Your task to perform on an android device: uninstall "Airtel Thanks" Image 0: 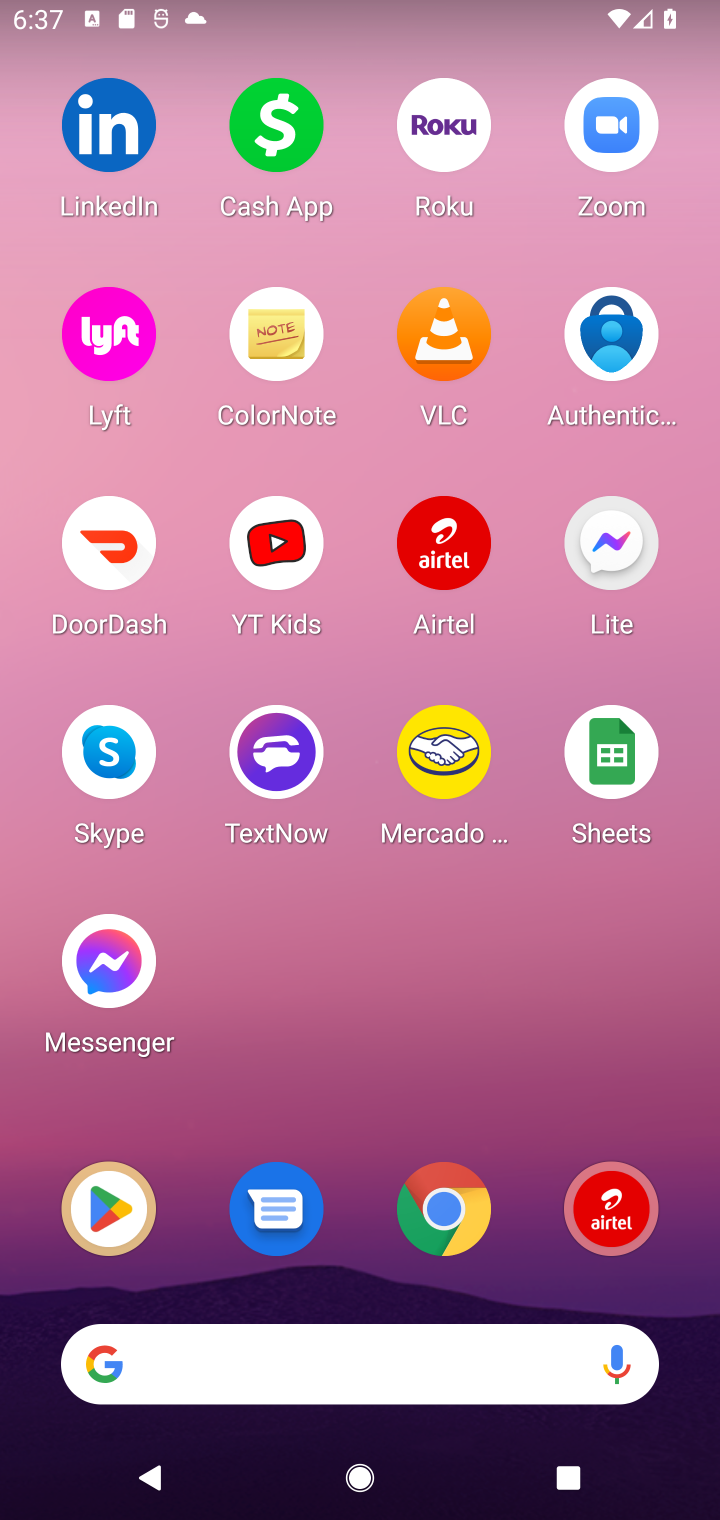
Step 0: click (438, 544)
Your task to perform on an android device: uninstall "Airtel Thanks" Image 1: 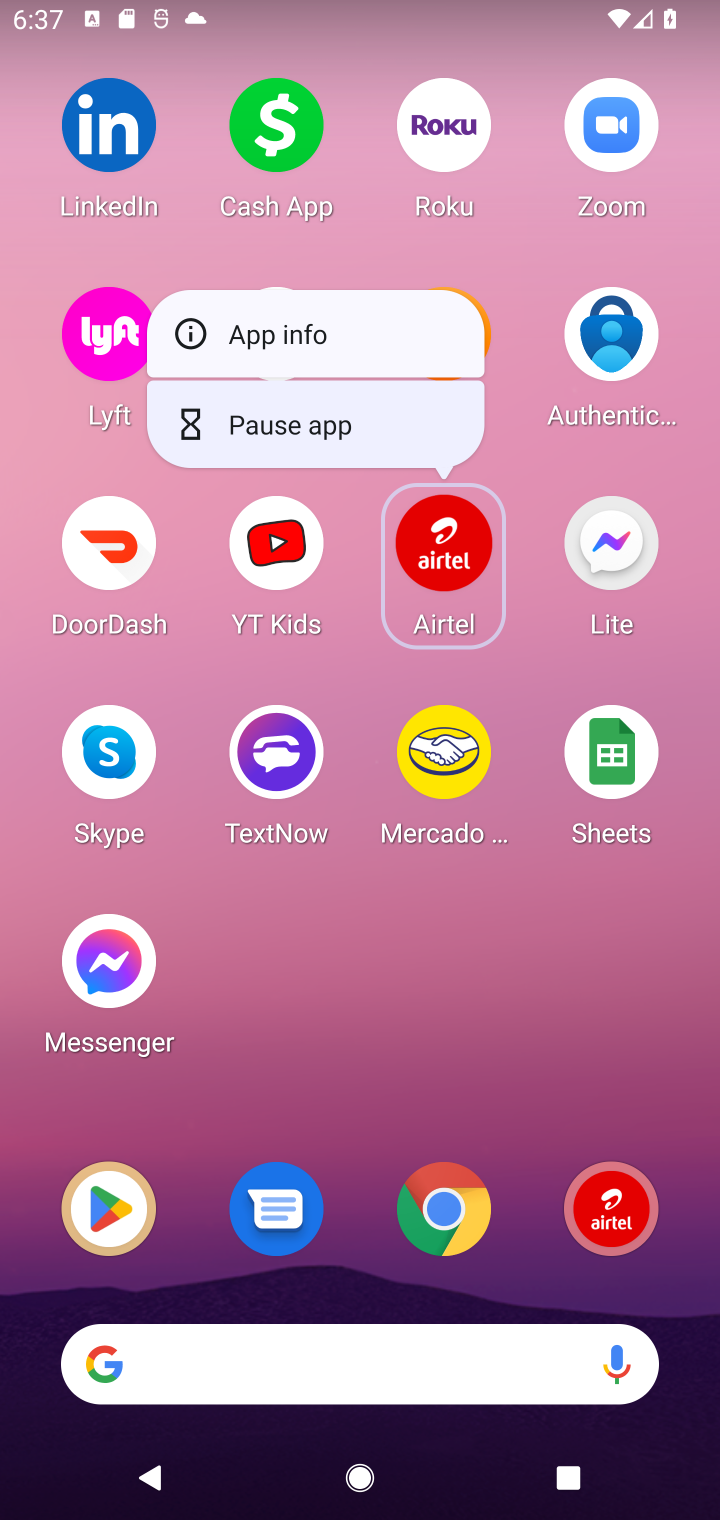
Step 1: click (270, 345)
Your task to perform on an android device: uninstall "Airtel Thanks" Image 2: 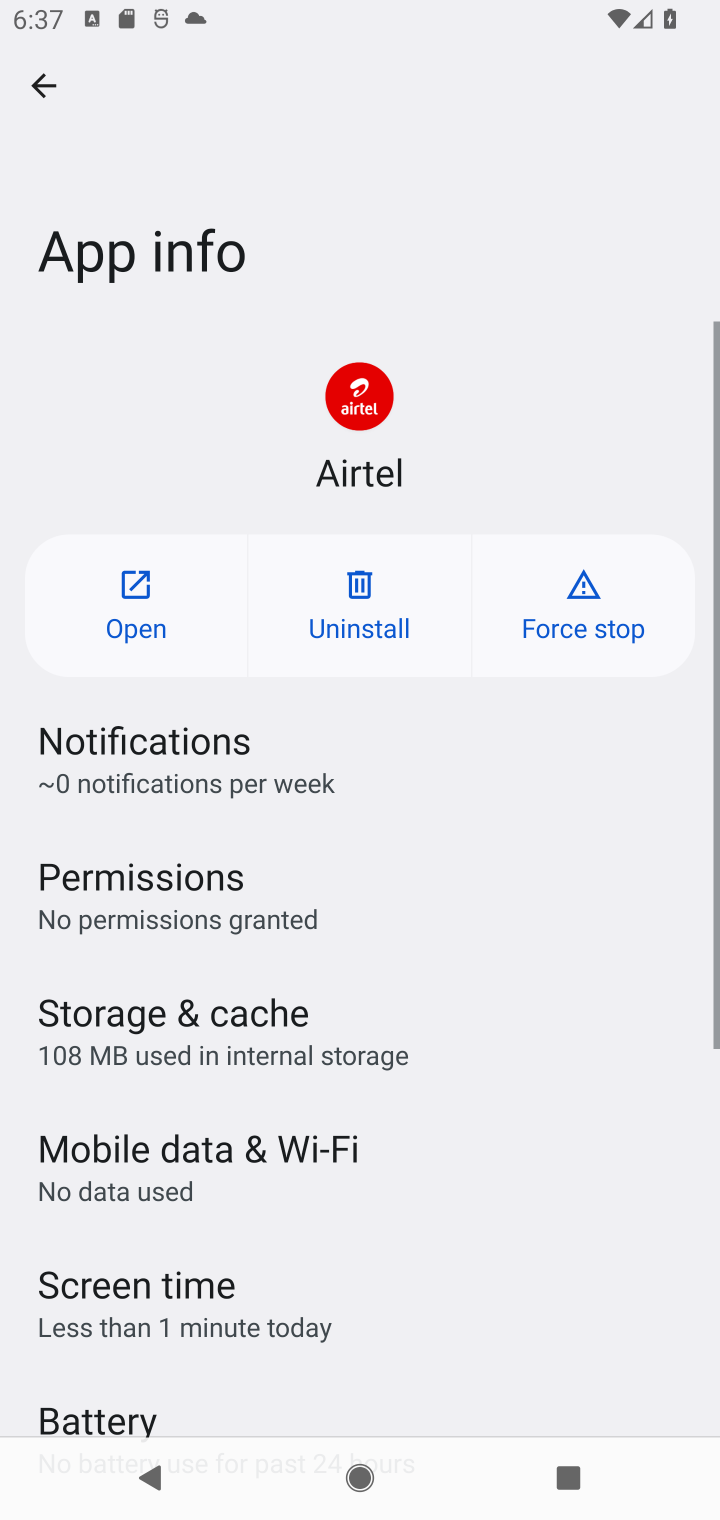
Step 2: click (353, 634)
Your task to perform on an android device: uninstall "Airtel Thanks" Image 3: 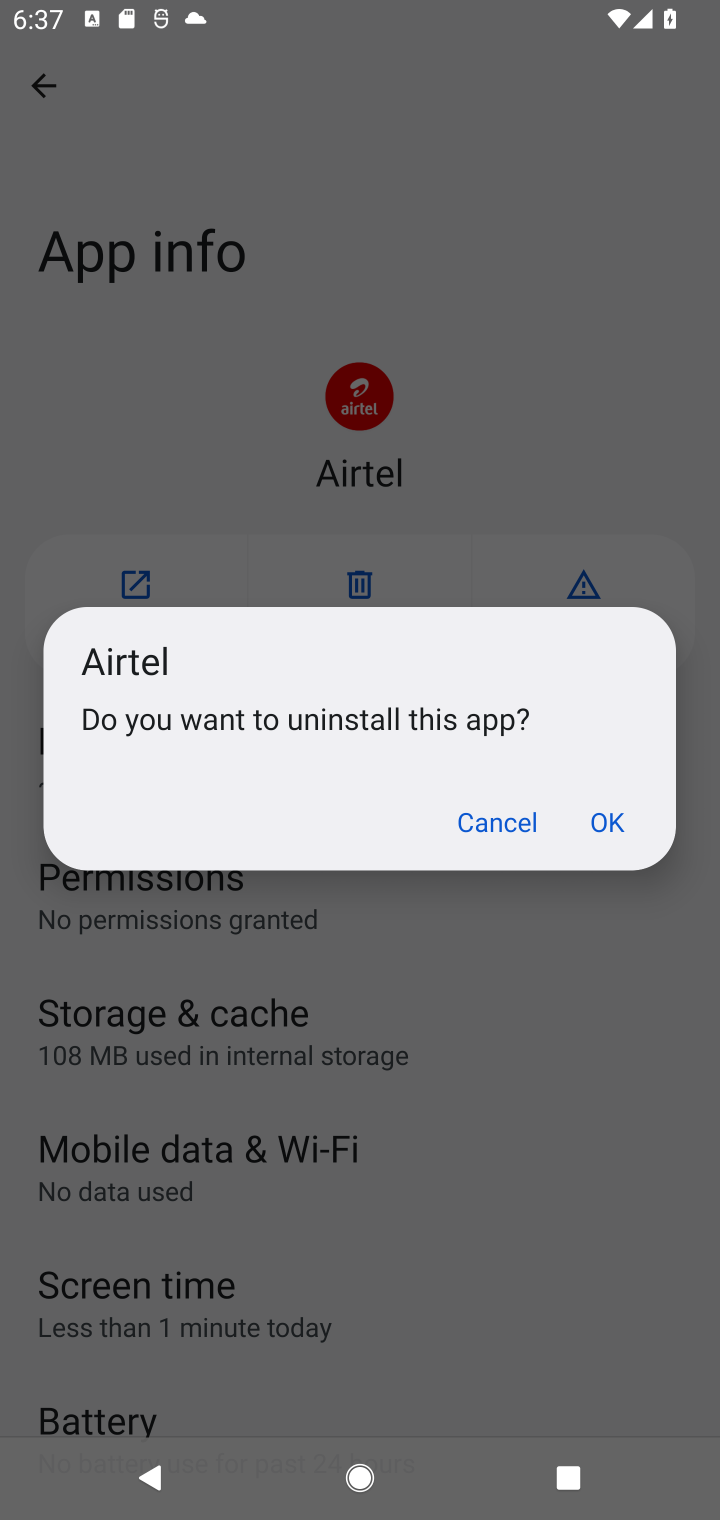
Step 3: click (602, 828)
Your task to perform on an android device: uninstall "Airtel Thanks" Image 4: 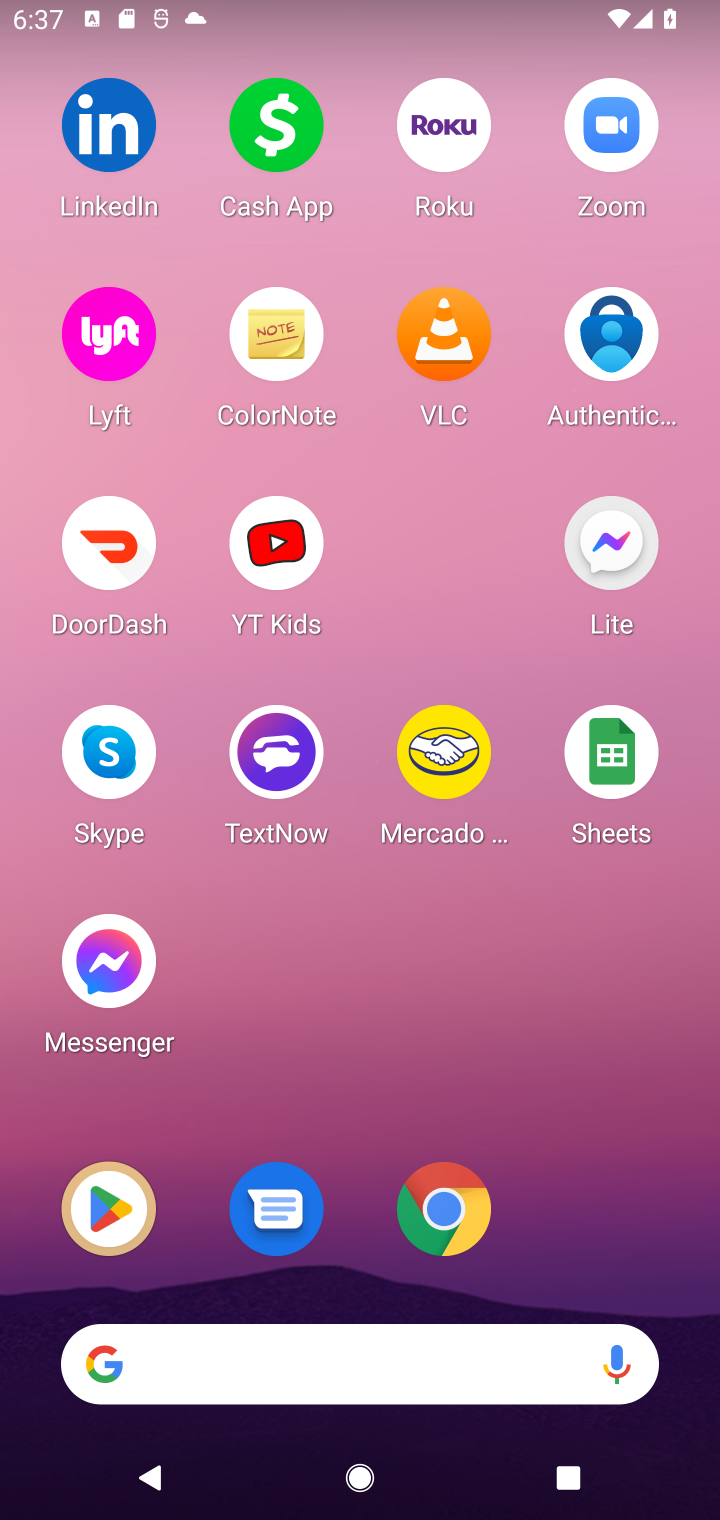
Step 4: task complete